Your task to perform on an android device: change keyboard looks Image 0: 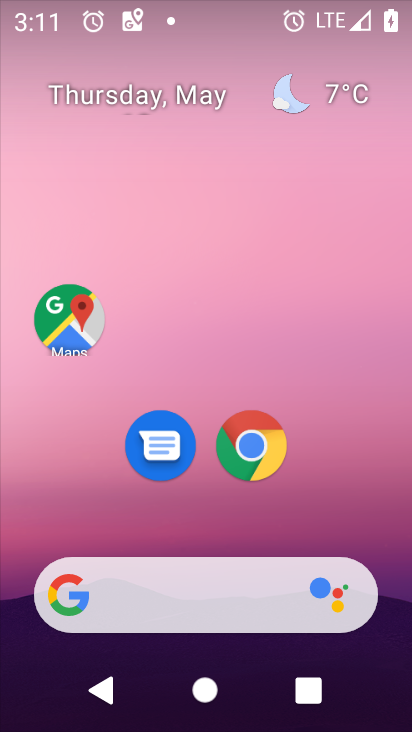
Step 0: drag from (361, 551) to (397, 29)
Your task to perform on an android device: change keyboard looks Image 1: 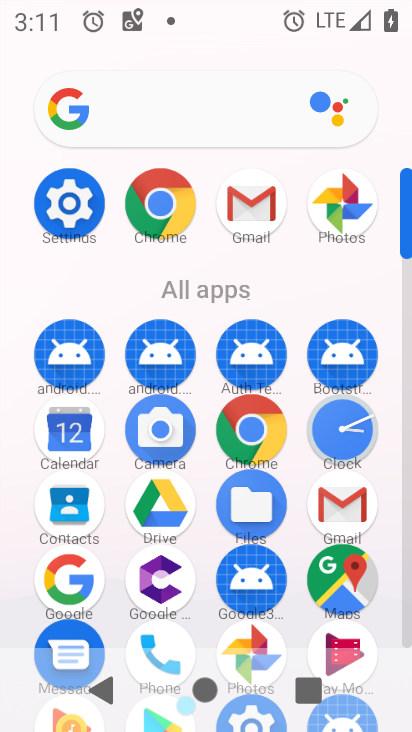
Step 1: click (74, 212)
Your task to perform on an android device: change keyboard looks Image 2: 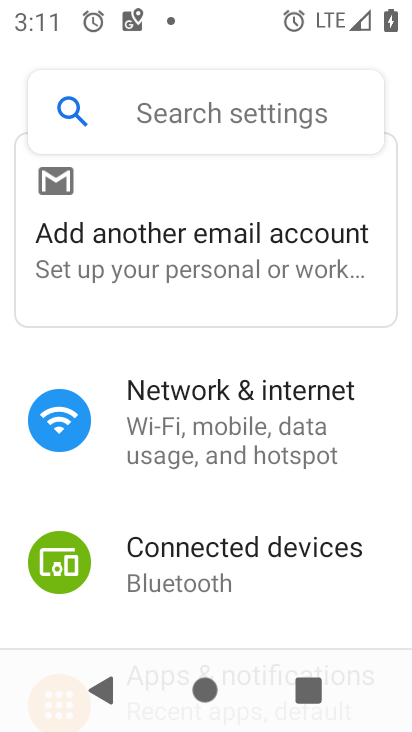
Step 2: drag from (256, 565) to (231, 114)
Your task to perform on an android device: change keyboard looks Image 3: 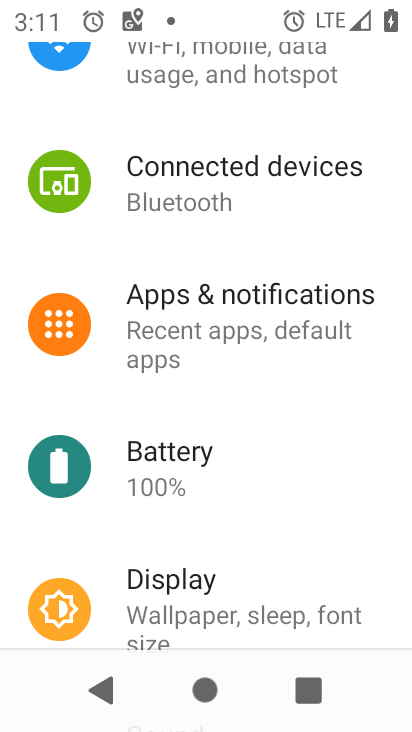
Step 3: drag from (256, 493) to (263, 40)
Your task to perform on an android device: change keyboard looks Image 4: 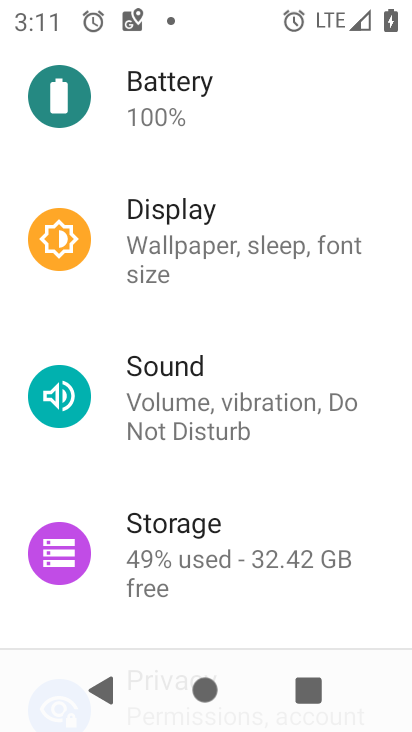
Step 4: drag from (267, 453) to (276, 91)
Your task to perform on an android device: change keyboard looks Image 5: 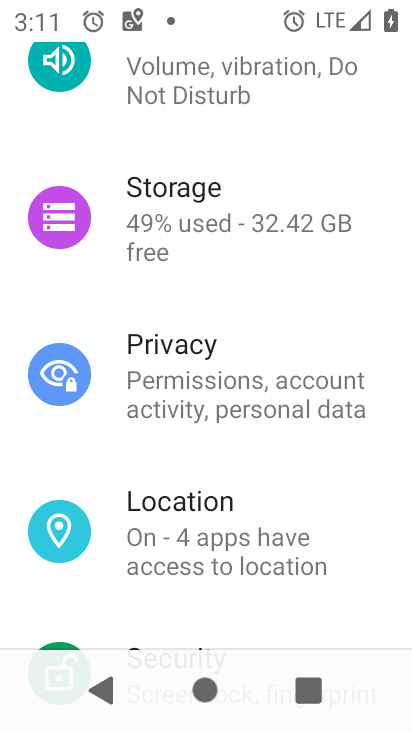
Step 5: drag from (243, 452) to (228, 75)
Your task to perform on an android device: change keyboard looks Image 6: 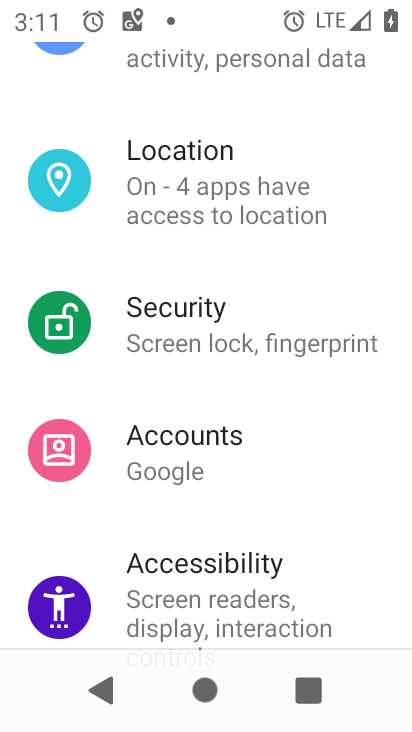
Step 6: drag from (266, 466) to (230, 49)
Your task to perform on an android device: change keyboard looks Image 7: 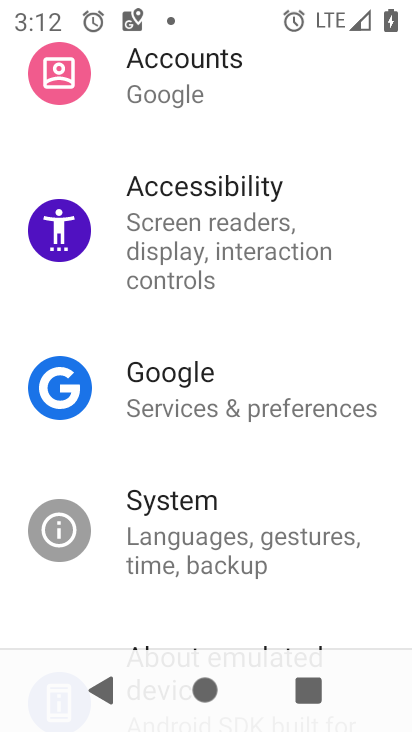
Step 7: click (165, 521)
Your task to perform on an android device: change keyboard looks Image 8: 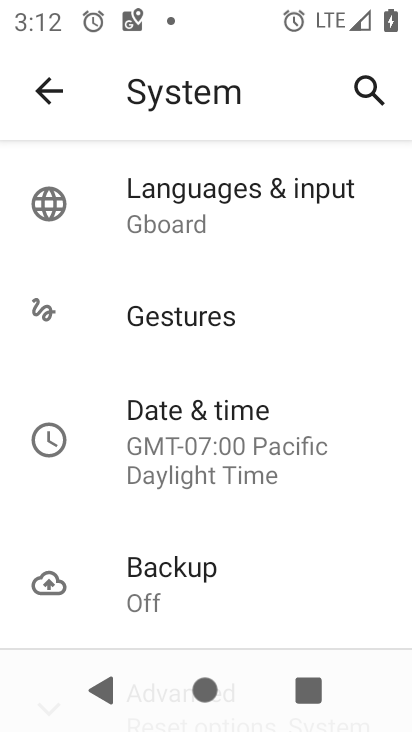
Step 8: click (169, 230)
Your task to perform on an android device: change keyboard looks Image 9: 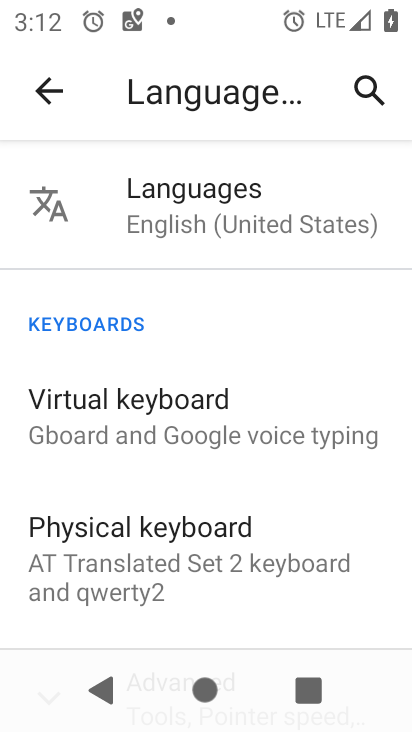
Step 9: click (126, 426)
Your task to perform on an android device: change keyboard looks Image 10: 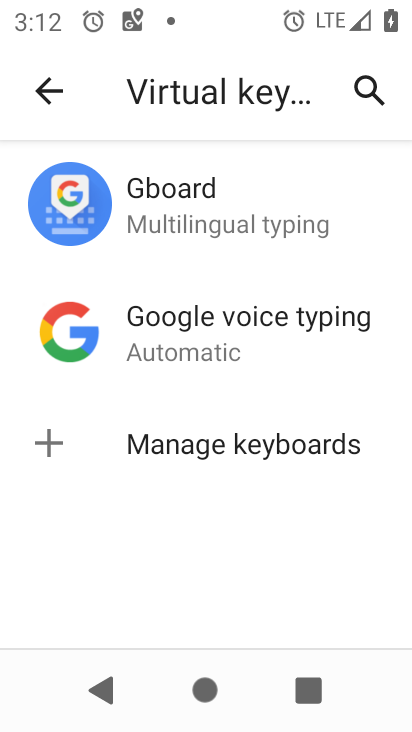
Step 10: click (165, 230)
Your task to perform on an android device: change keyboard looks Image 11: 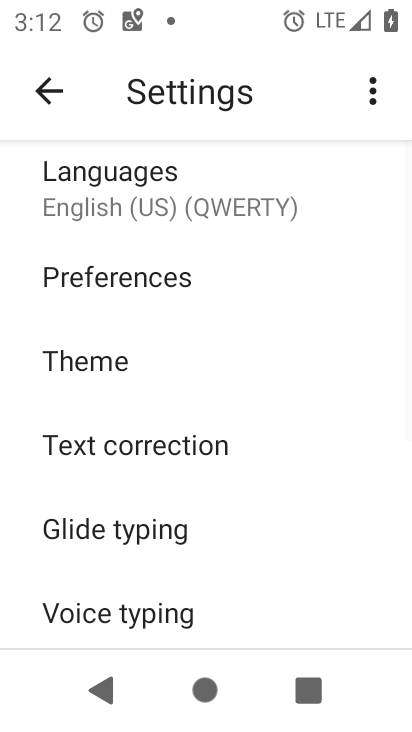
Step 11: click (78, 361)
Your task to perform on an android device: change keyboard looks Image 12: 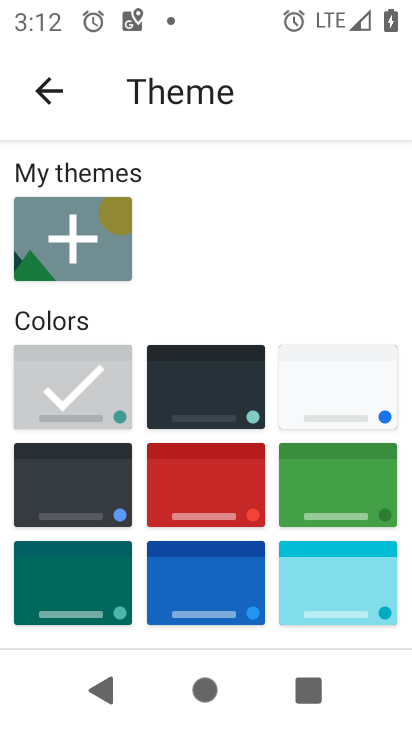
Step 12: click (198, 487)
Your task to perform on an android device: change keyboard looks Image 13: 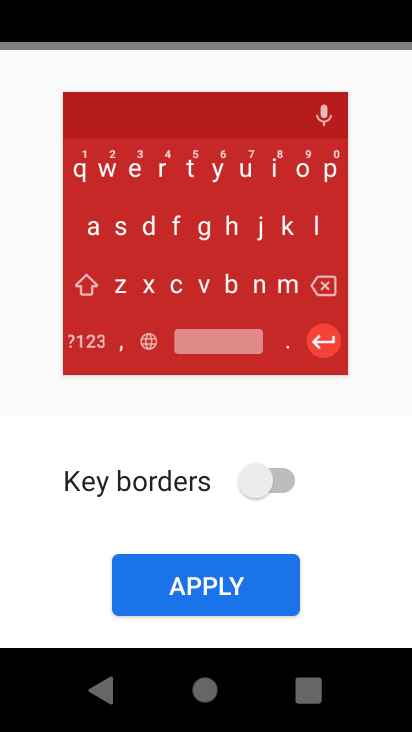
Step 13: click (264, 468)
Your task to perform on an android device: change keyboard looks Image 14: 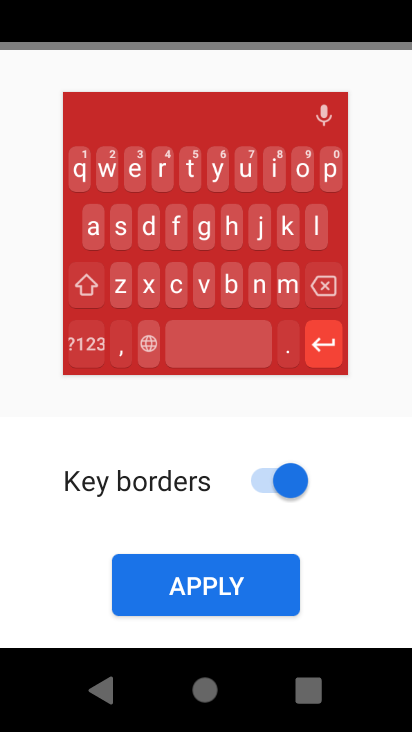
Step 14: click (226, 586)
Your task to perform on an android device: change keyboard looks Image 15: 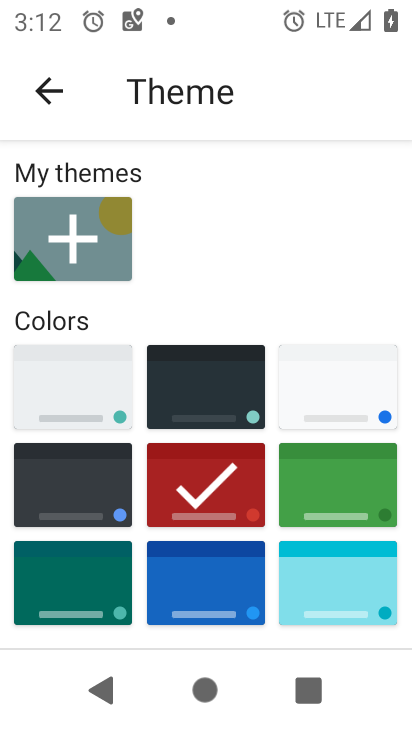
Step 15: task complete